Your task to perform on an android device: turn off smart reply in the gmail app Image 0: 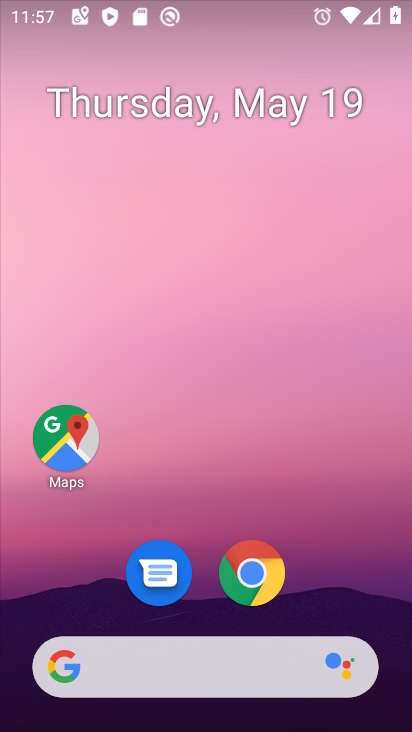
Step 0: drag from (205, 594) to (228, 84)
Your task to perform on an android device: turn off smart reply in the gmail app Image 1: 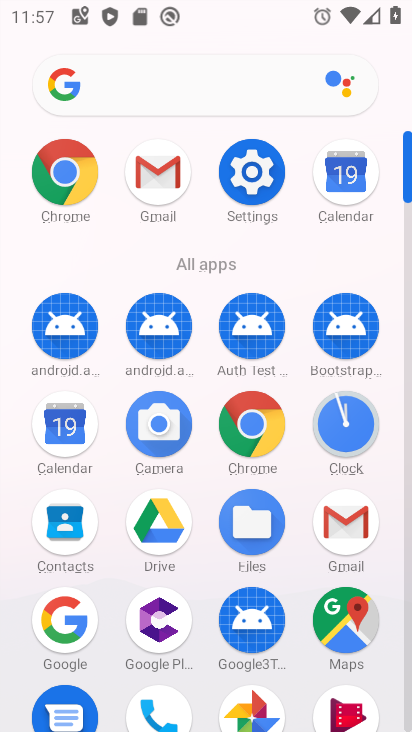
Step 1: press home button
Your task to perform on an android device: turn off smart reply in the gmail app Image 2: 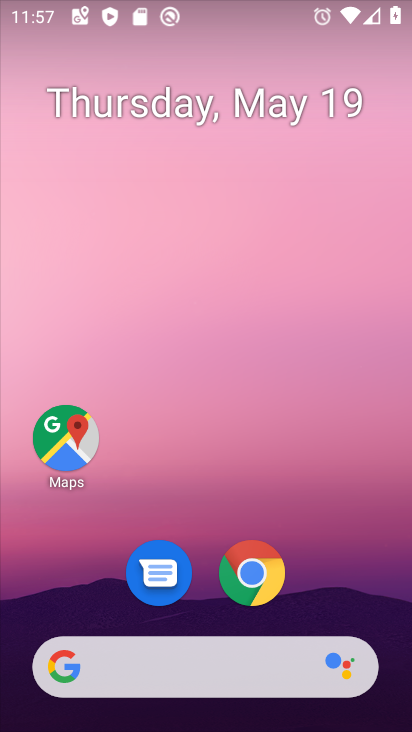
Step 2: drag from (215, 598) to (232, 24)
Your task to perform on an android device: turn off smart reply in the gmail app Image 3: 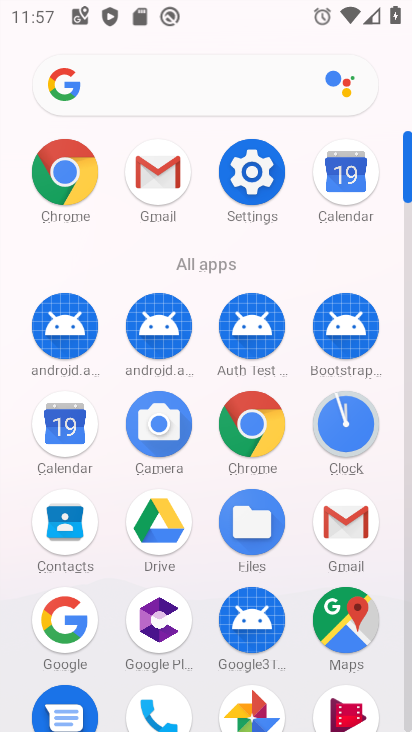
Step 3: click (334, 526)
Your task to perform on an android device: turn off smart reply in the gmail app Image 4: 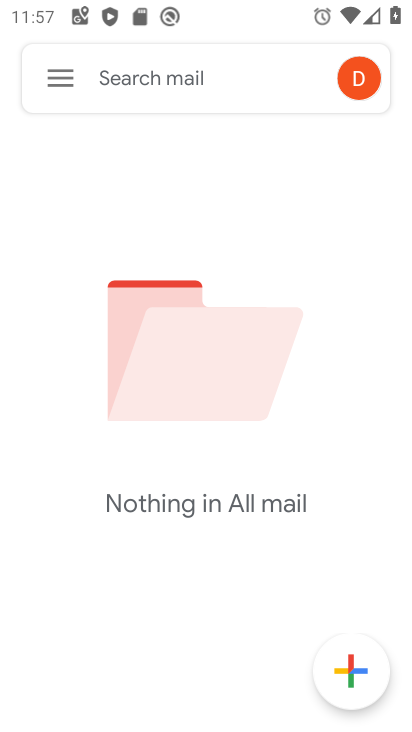
Step 4: click (69, 81)
Your task to perform on an android device: turn off smart reply in the gmail app Image 5: 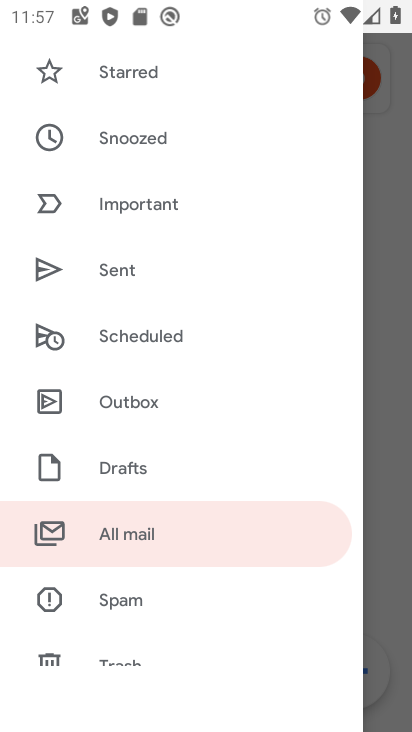
Step 5: drag from (131, 552) to (209, 76)
Your task to perform on an android device: turn off smart reply in the gmail app Image 6: 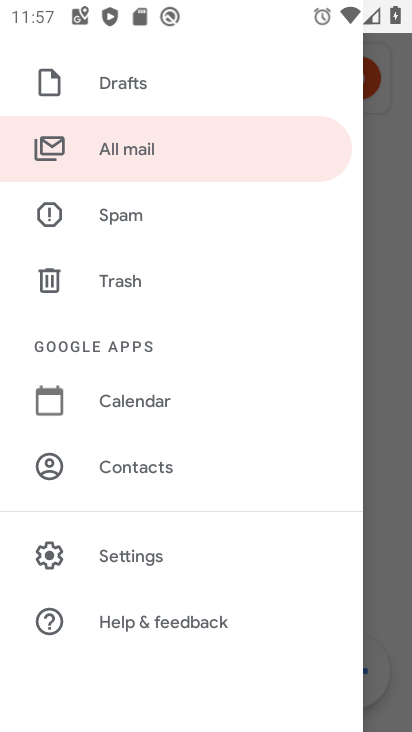
Step 6: click (134, 566)
Your task to perform on an android device: turn off smart reply in the gmail app Image 7: 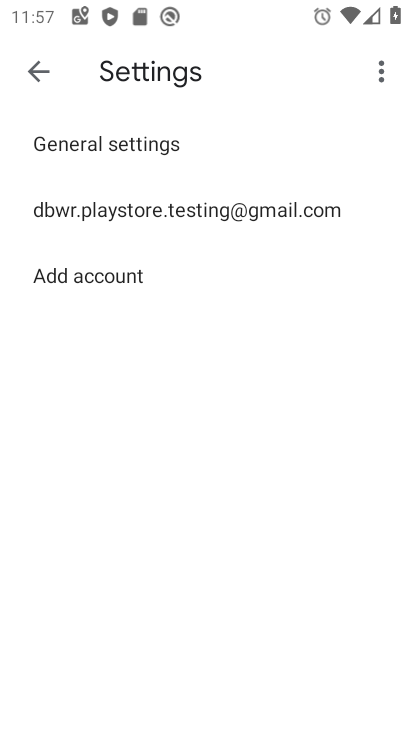
Step 7: click (217, 205)
Your task to perform on an android device: turn off smart reply in the gmail app Image 8: 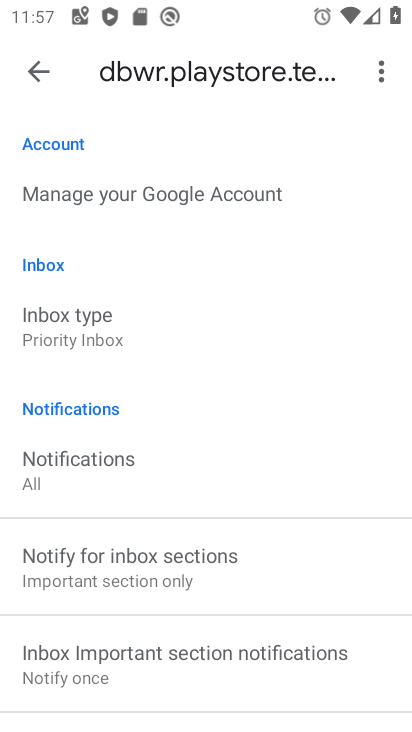
Step 8: drag from (112, 540) to (138, 329)
Your task to perform on an android device: turn off smart reply in the gmail app Image 9: 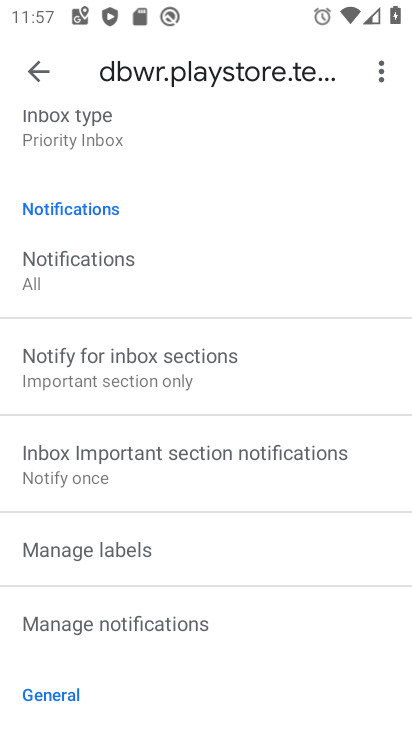
Step 9: drag from (149, 561) to (193, 267)
Your task to perform on an android device: turn off smart reply in the gmail app Image 10: 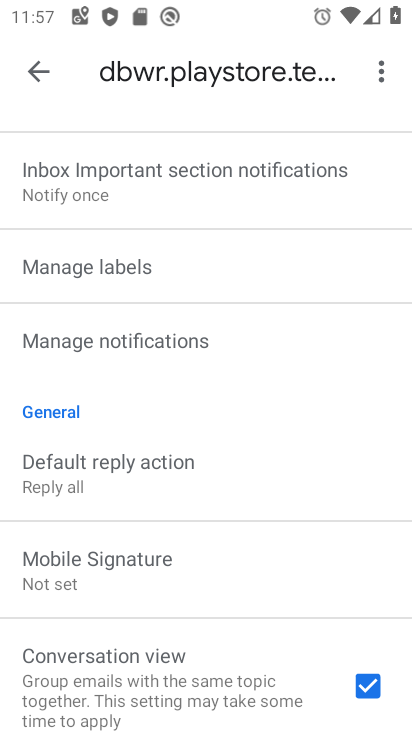
Step 10: drag from (179, 623) to (213, 314)
Your task to perform on an android device: turn off smart reply in the gmail app Image 11: 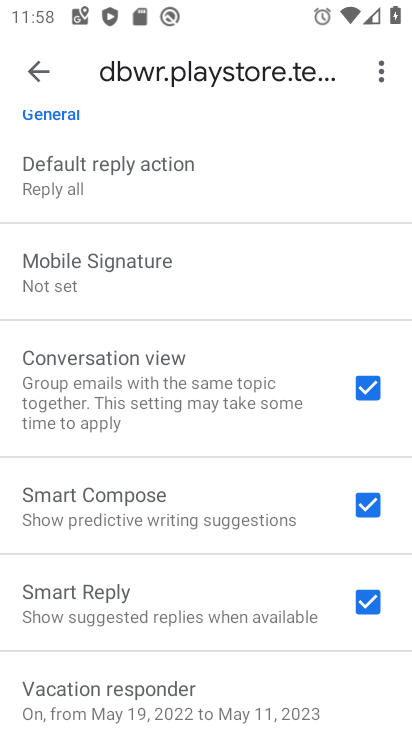
Step 11: click (333, 604)
Your task to perform on an android device: turn off smart reply in the gmail app Image 12: 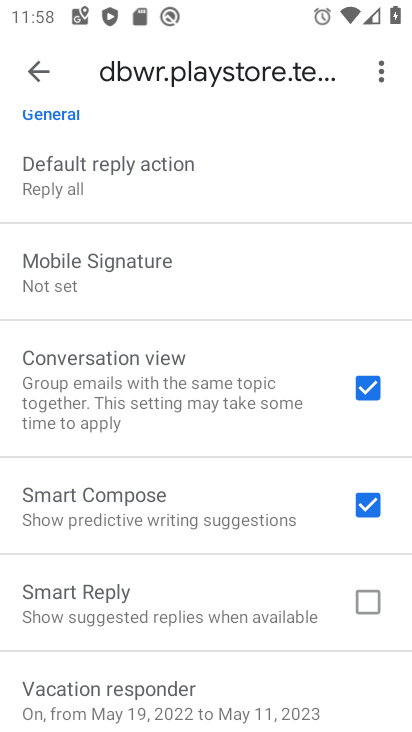
Step 12: task complete